Your task to perform on an android device: all mails in gmail Image 0: 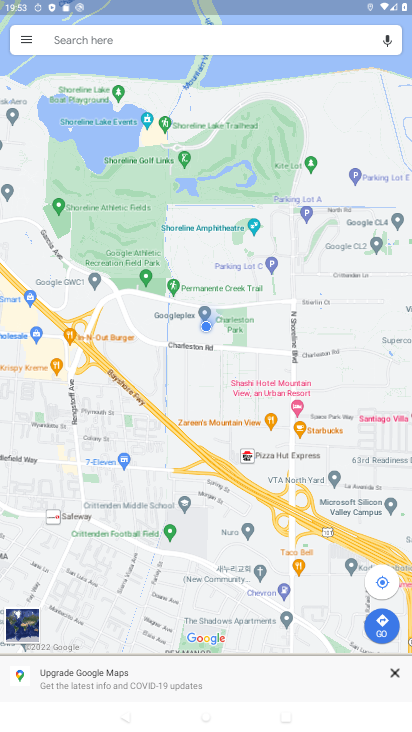
Step 0: press home button
Your task to perform on an android device: all mails in gmail Image 1: 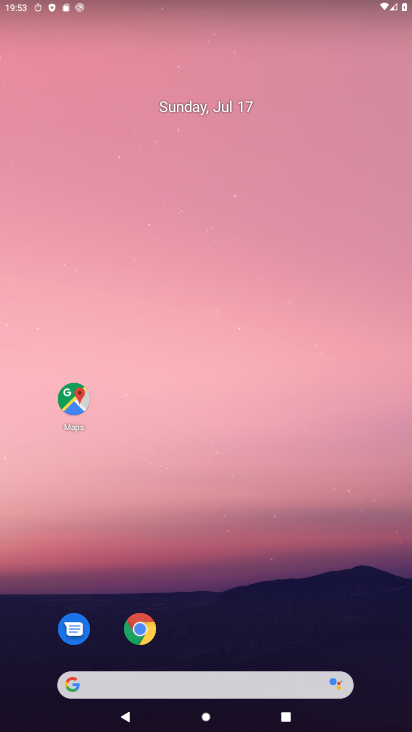
Step 1: drag from (236, 640) to (249, 161)
Your task to perform on an android device: all mails in gmail Image 2: 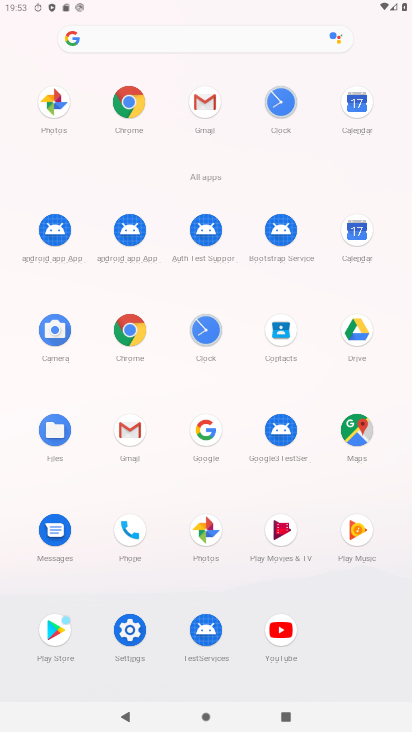
Step 2: click (198, 119)
Your task to perform on an android device: all mails in gmail Image 3: 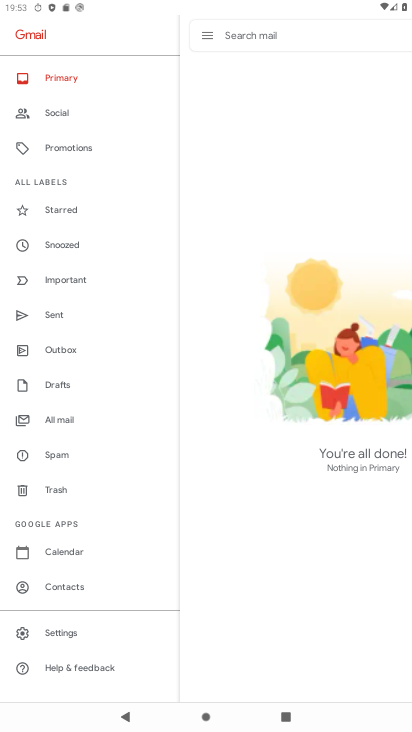
Step 3: click (69, 419)
Your task to perform on an android device: all mails in gmail Image 4: 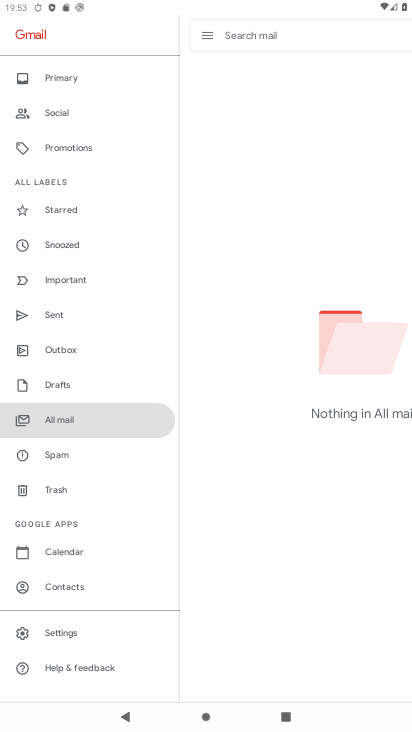
Step 4: task complete